Your task to perform on an android device: turn off airplane mode Image 0: 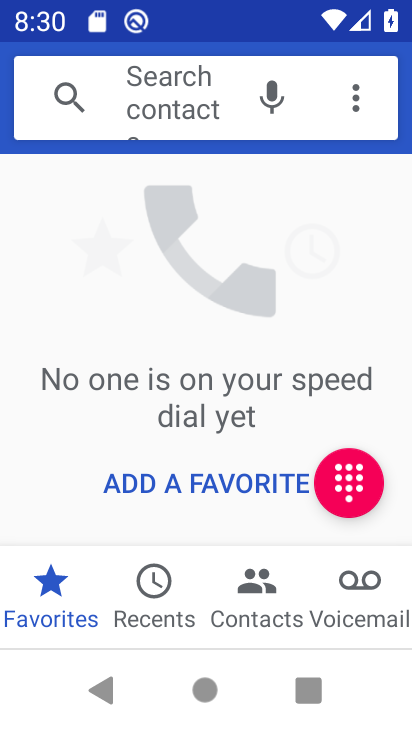
Step 0: press home button
Your task to perform on an android device: turn off airplane mode Image 1: 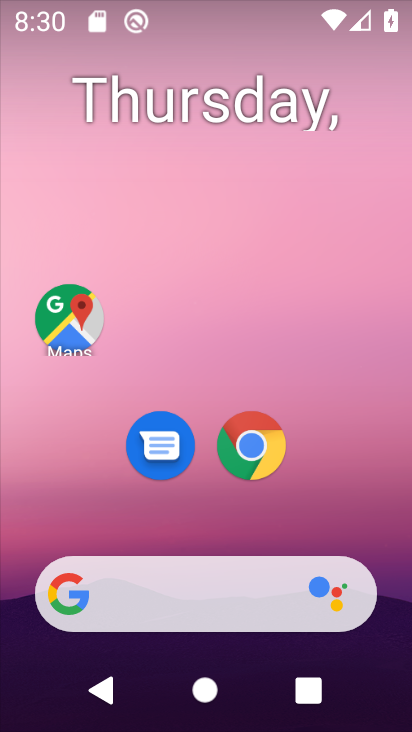
Step 1: drag from (338, 528) to (215, 86)
Your task to perform on an android device: turn off airplane mode Image 2: 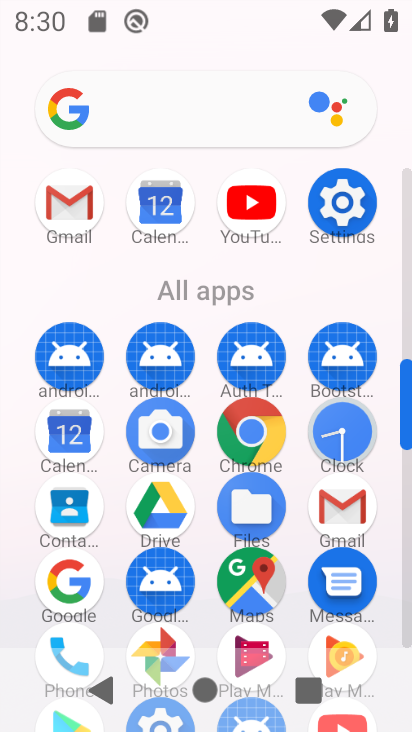
Step 2: click (348, 203)
Your task to perform on an android device: turn off airplane mode Image 3: 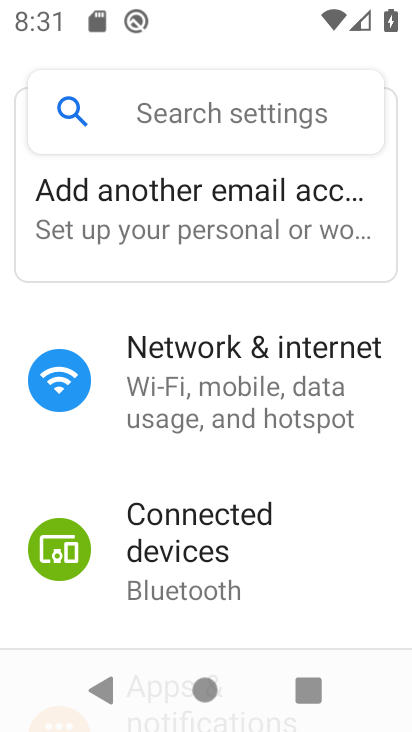
Step 3: click (212, 382)
Your task to perform on an android device: turn off airplane mode Image 4: 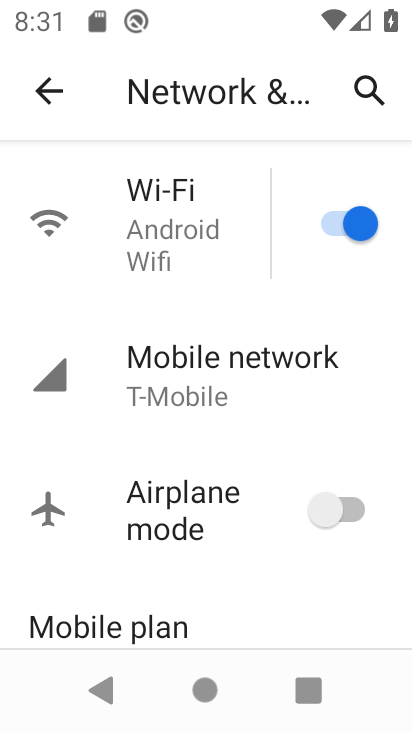
Step 4: task complete